Your task to perform on an android device: allow cookies in the chrome app Image 0: 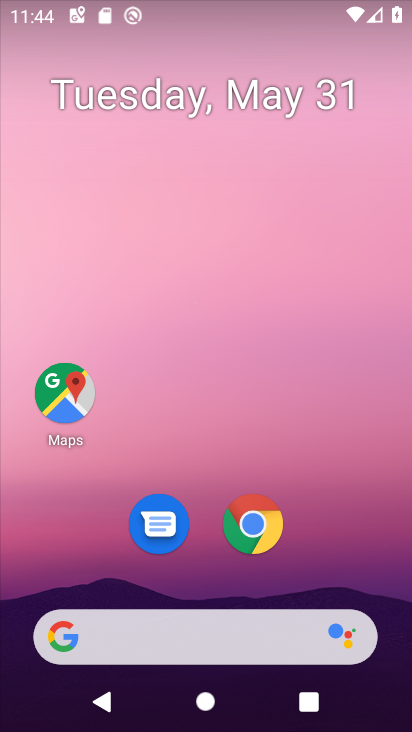
Step 0: click (252, 528)
Your task to perform on an android device: allow cookies in the chrome app Image 1: 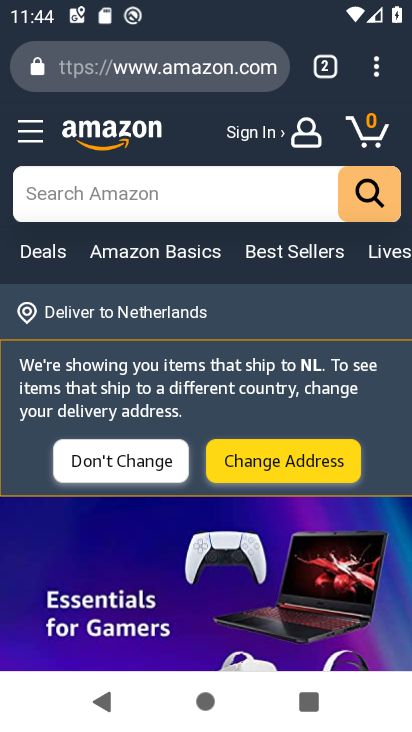
Step 1: click (377, 68)
Your task to perform on an android device: allow cookies in the chrome app Image 2: 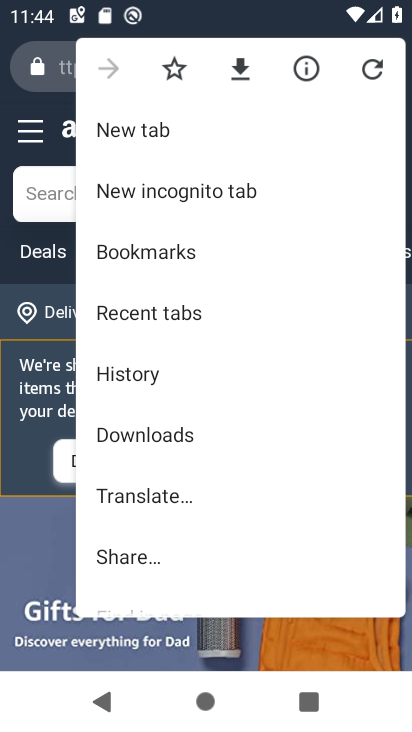
Step 2: drag from (228, 425) to (244, 145)
Your task to perform on an android device: allow cookies in the chrome app Image 3: 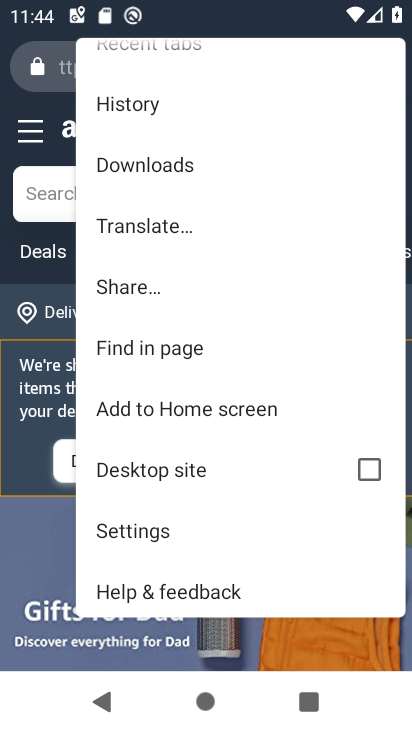
Step 3: click (154, 535)
Your task to perform on an android device: allow cookies in the chrome app Image 4: 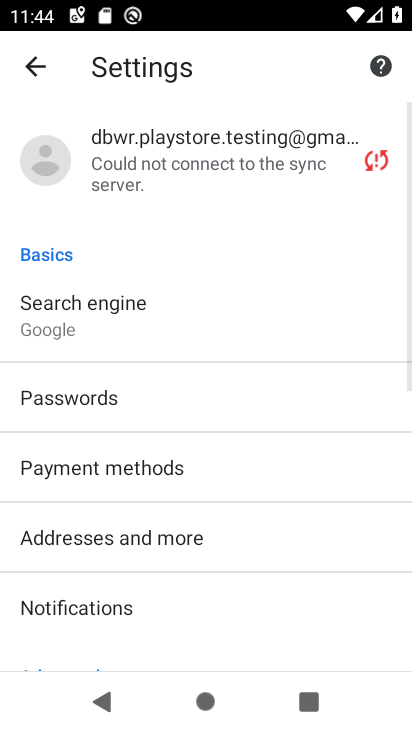
Step 4: drag from (217, 480) to (263, 192)
Your task to perform on an android device: allow cookies in the chrome app Image 5: 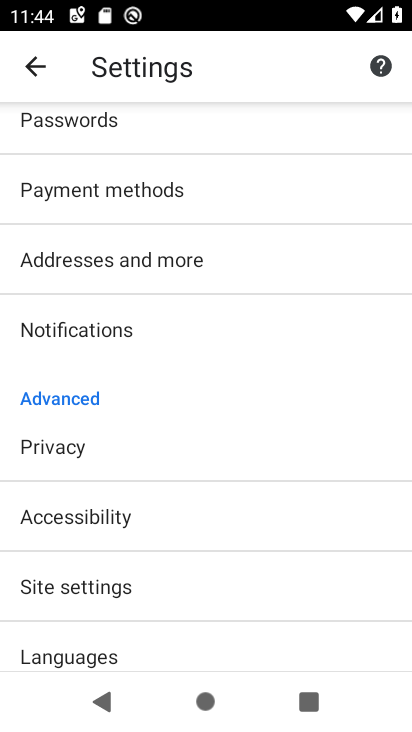
Step 5: click (178, 588)
Your task to perform on an android device: allow cookies in the chrome app Image 6: 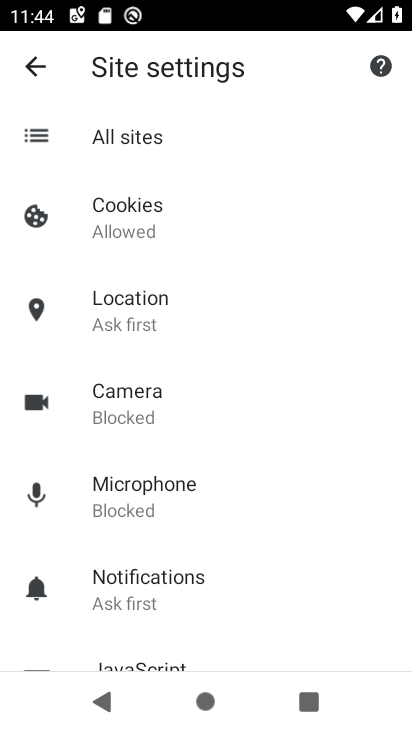
Step 6: click (167, 210)
Your task to perform on an android device: allow cookies in the chrome app Image 7: 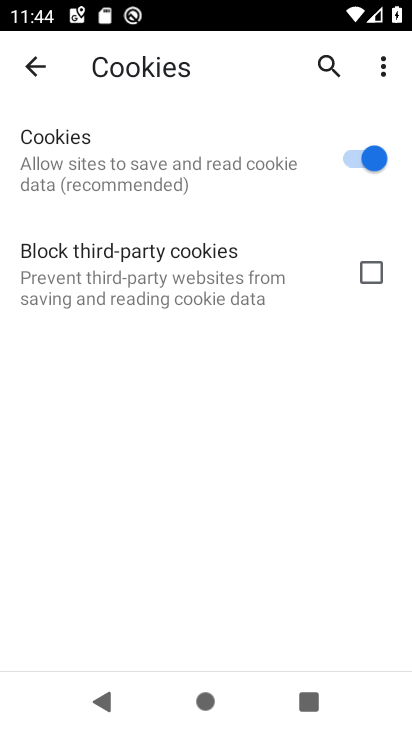
Step 7: task complete